Your task to perform on an android device: Open Google Image 0: 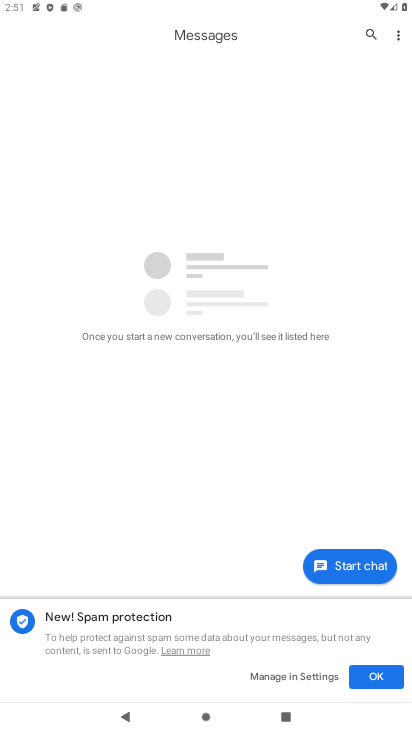
Step 0: press home button
Your task to perform on an android device: Open Google Image 1: 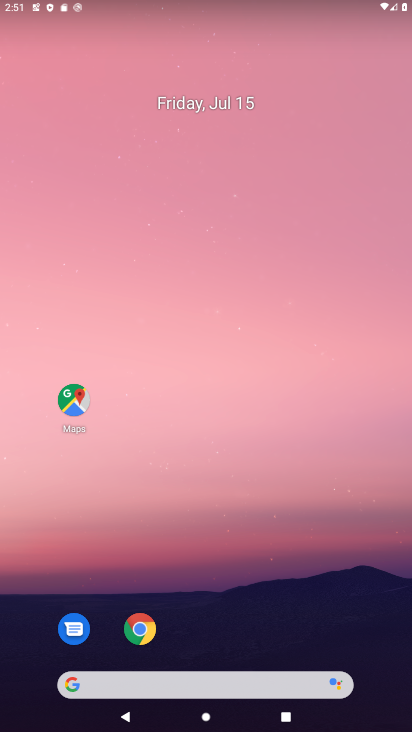
Step 1: click (217, 685)
Your task to perform on an android device: Open Google Image 2: 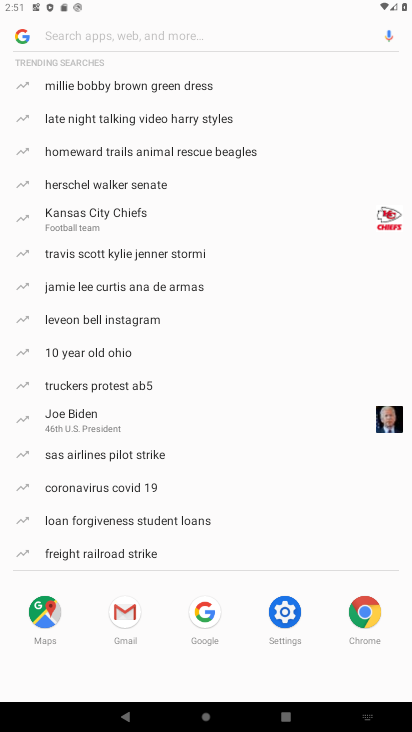
Step 2: task complete